Your task to perform on an android device: turn on javascript in the chrome app Image 0: 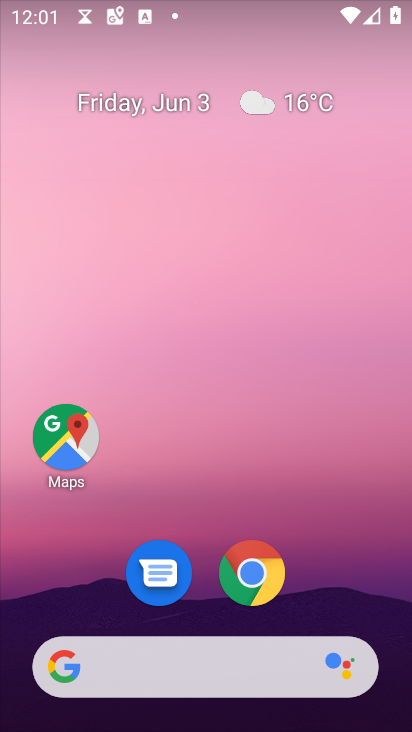
Step 0: drag from (358, 529) to (243, 9)
Your task to perform on an android device: turn on javascript in the chrome app Image 1: 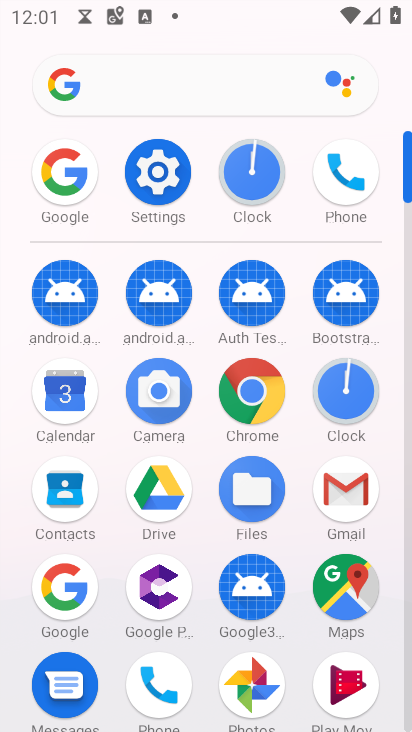
Step 1: click (233, 386)
Your task to perform on an android device: turn on javascript in the chrome app Image 2: 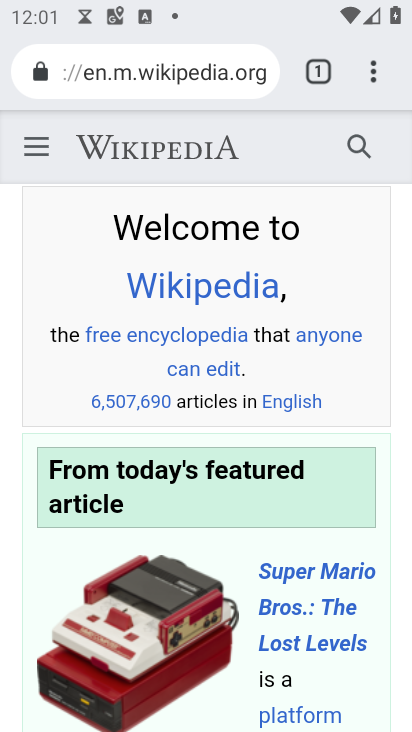
Step 2: drag from (372, 56) to (144, 565)
Your task to perform on an android device: turn on javascript in the chrome app Image 3: 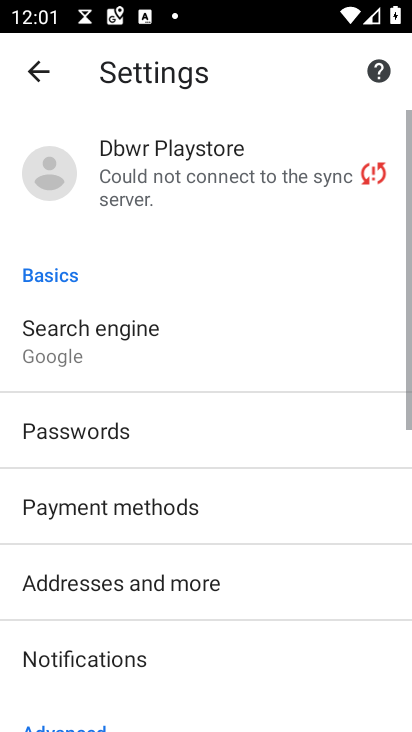
Step 3: drag from (144, 565) to (207, 95)
Your task to perform on an android device: turn on javascript in the chrome app Image 4: 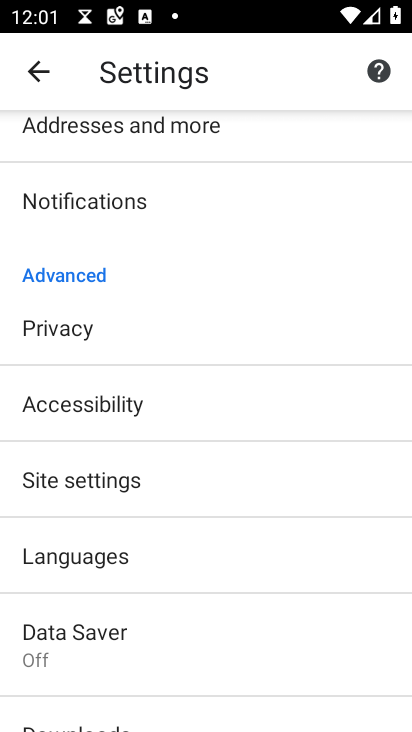
Step 4: click (126, 477)
Your task to perform on an android device: turn on javascript in the chrome app Image 5: 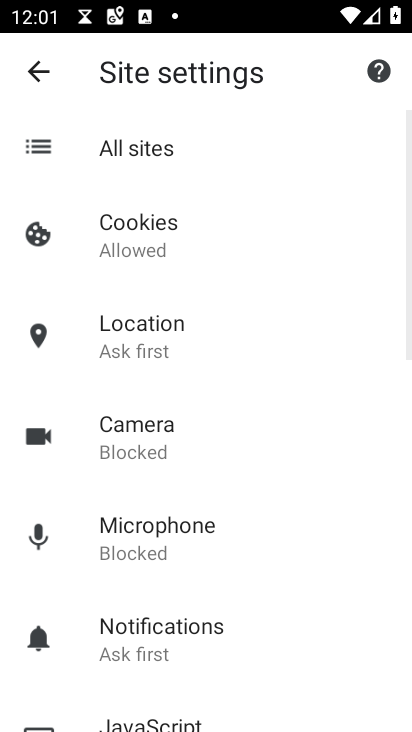
Step 5: drag from (159, 660) to (224, 172)
Your task to perform on an android device: turn on javascript in the chrome app Image 6: 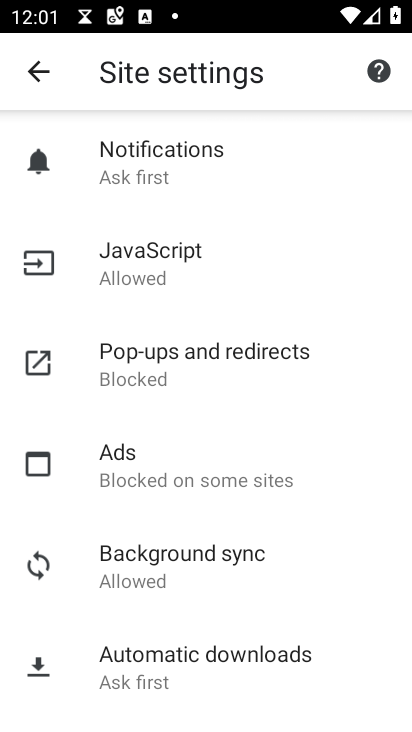
Step 6: click (173, 256)
Your task to perform on an android device: turn on javascript in the chrome app Image 7: 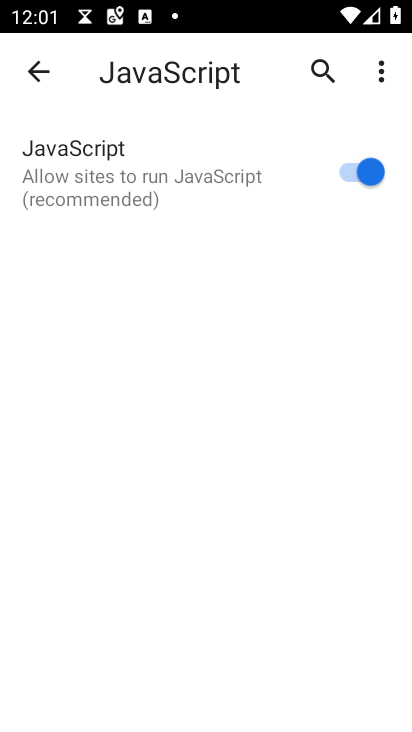
Step 7: task complete